Your task to perform on an android device: toggle show notifications on the lock screen Image 0: 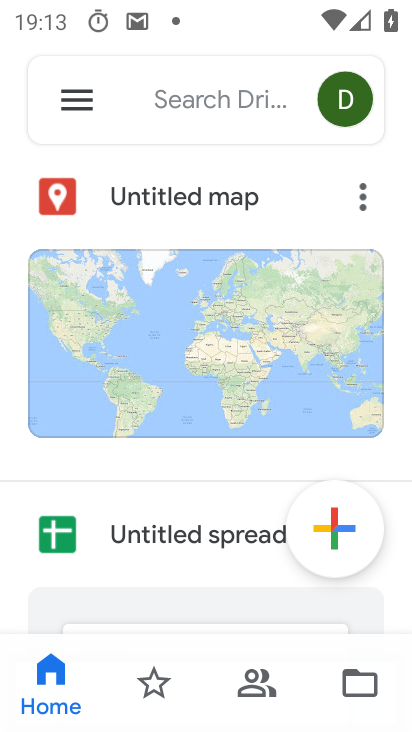
Step 0: press home button
Your task to perform on an android device: toggle show notifications on the lock screen Image 1: 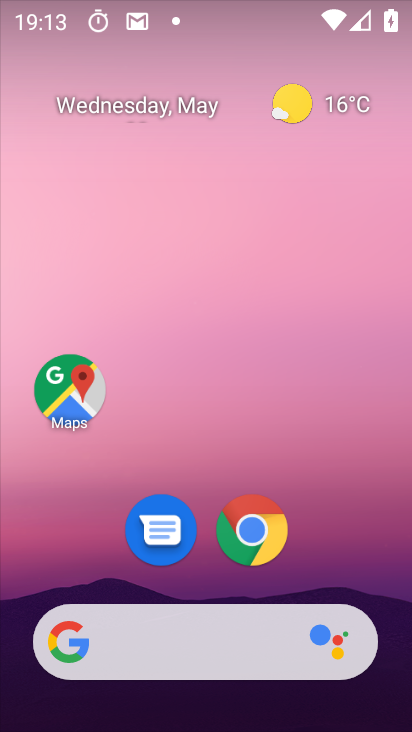
Step 1: drag from (190, 582) to (247, 202)
Your task to perform on an android device: toggle show notifications on the lock screen Image 2: 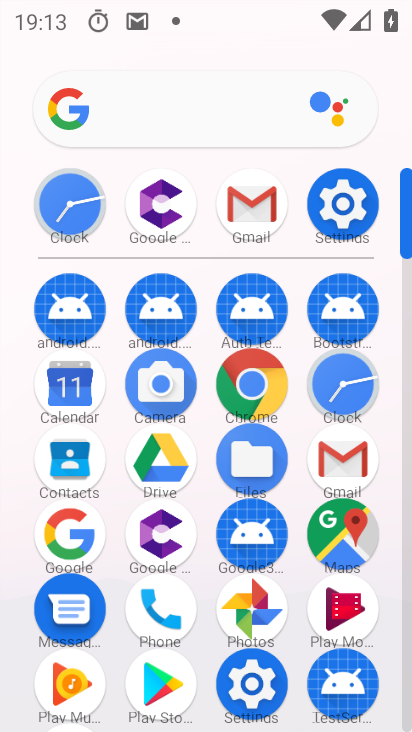
Step 2: click (346, 205)
Your task to perform on an android device: toggle show notifications on the lock screen Image 3: 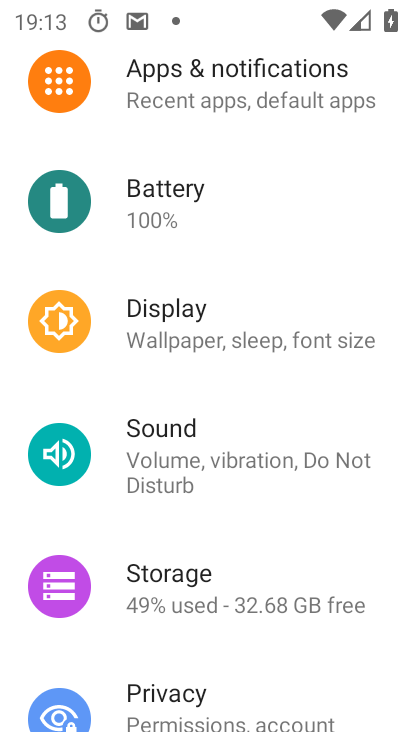
Step 3: click (261, 101)
Your task to perform on an android device: toggle show notifications on the lock screen Image 4: 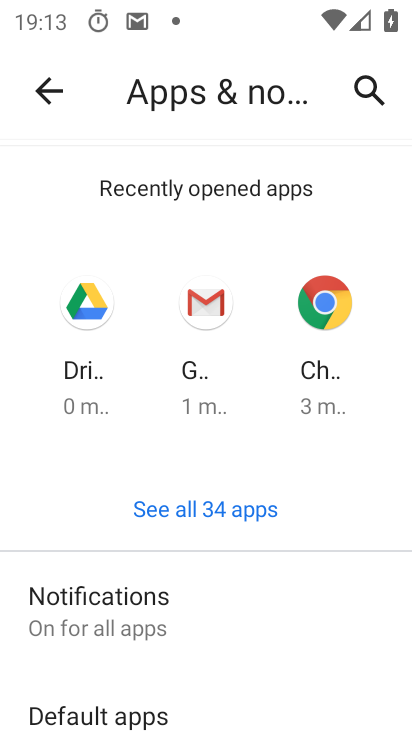
Step 4: click (158, 619)
Your task to perform on an android device: toggle show notifications on the lock screen Image 5: 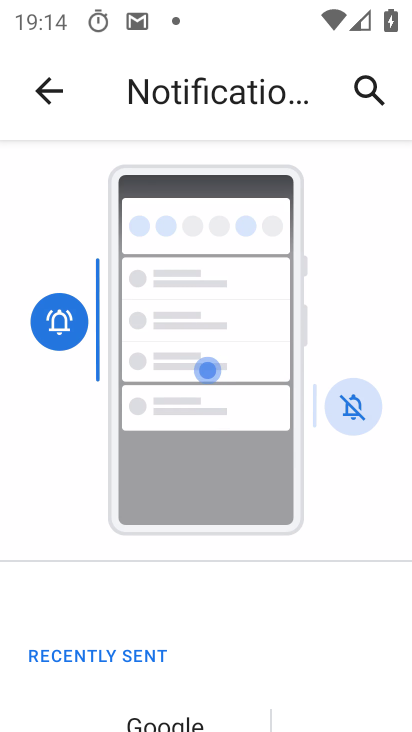
Step 5: drag from (279, 644) to (270, 113)
Your task to perform on an android device: toggle show notifications on the lock screen Image 6: 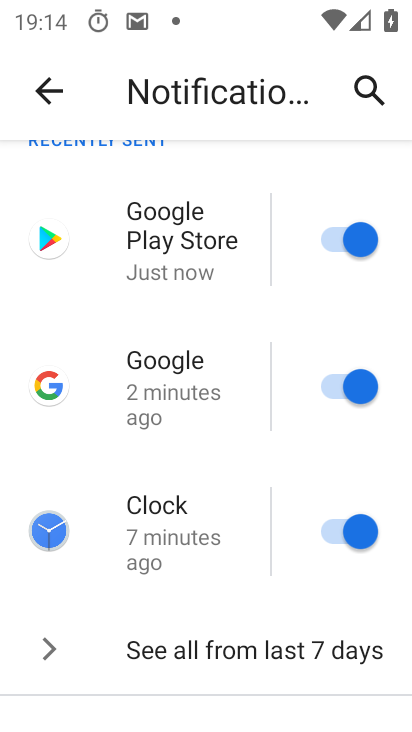
Step 6: drag from (250, 585) to (227, 251)
Your task to perform on an android device: toggle show notifications on the lock screen Image 7: 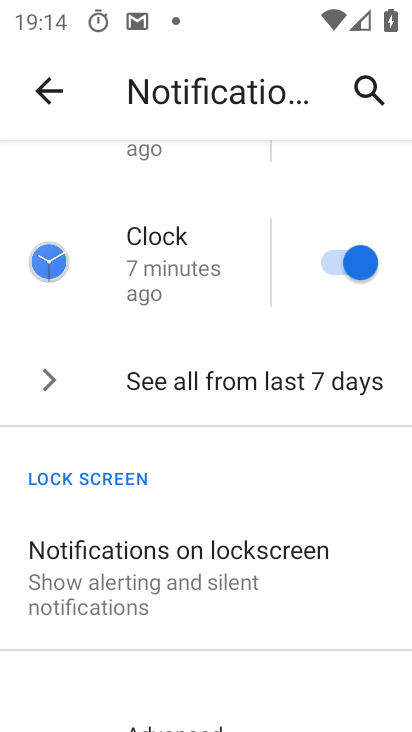
Step 7: click (185, 554)
Your task to perform on an android device: toggle show notifications on the lock screen Image 8: 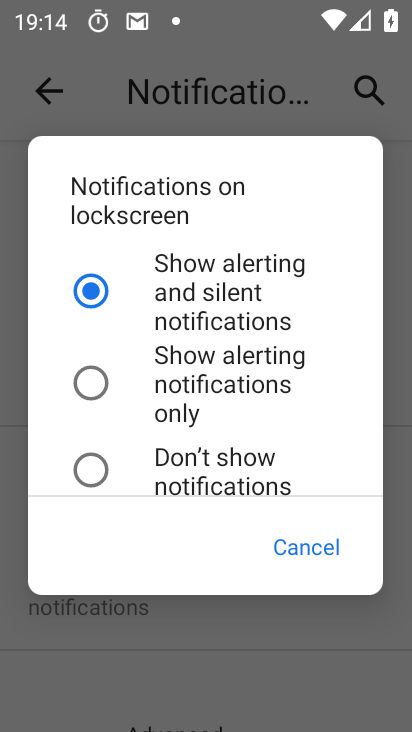
Step 8: click (141, 407)
Your task to perform on an android device: toggle show notifications on the lock screen Image 9: 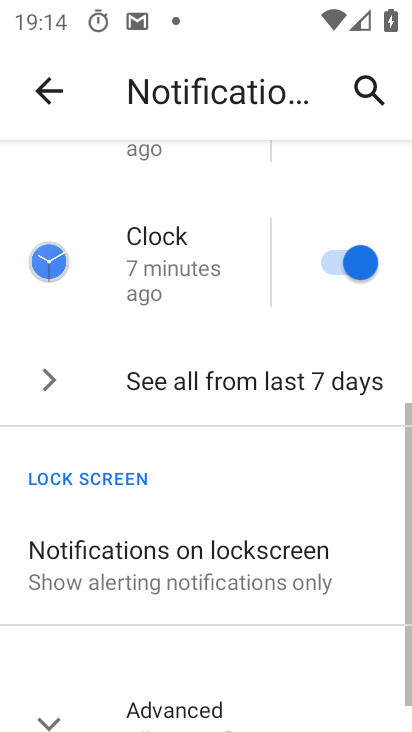
Step 9: task complete